Your task to perform on an android device: install app "Google Maps" Image 0: 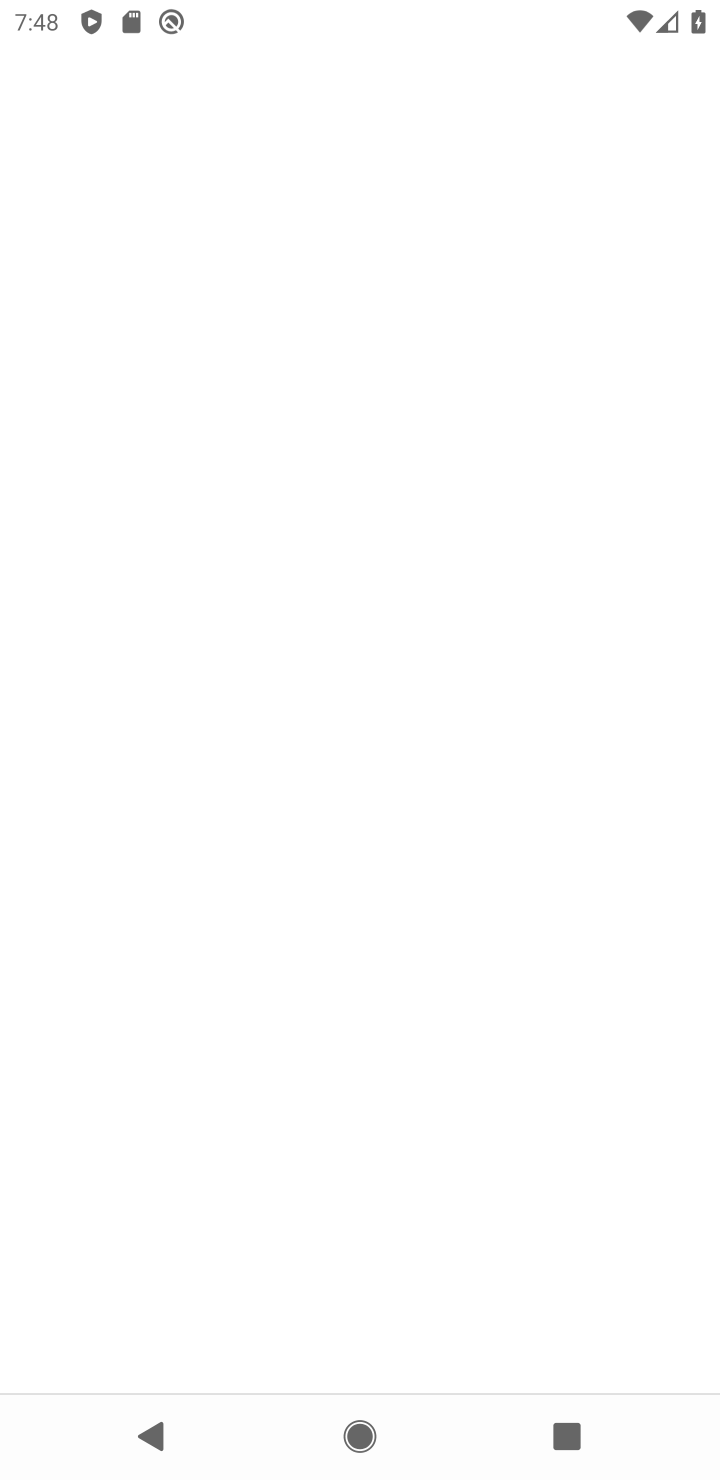
Step 0: press home button
Your task to perform on an android device: install app "Google Maps" Image 1: 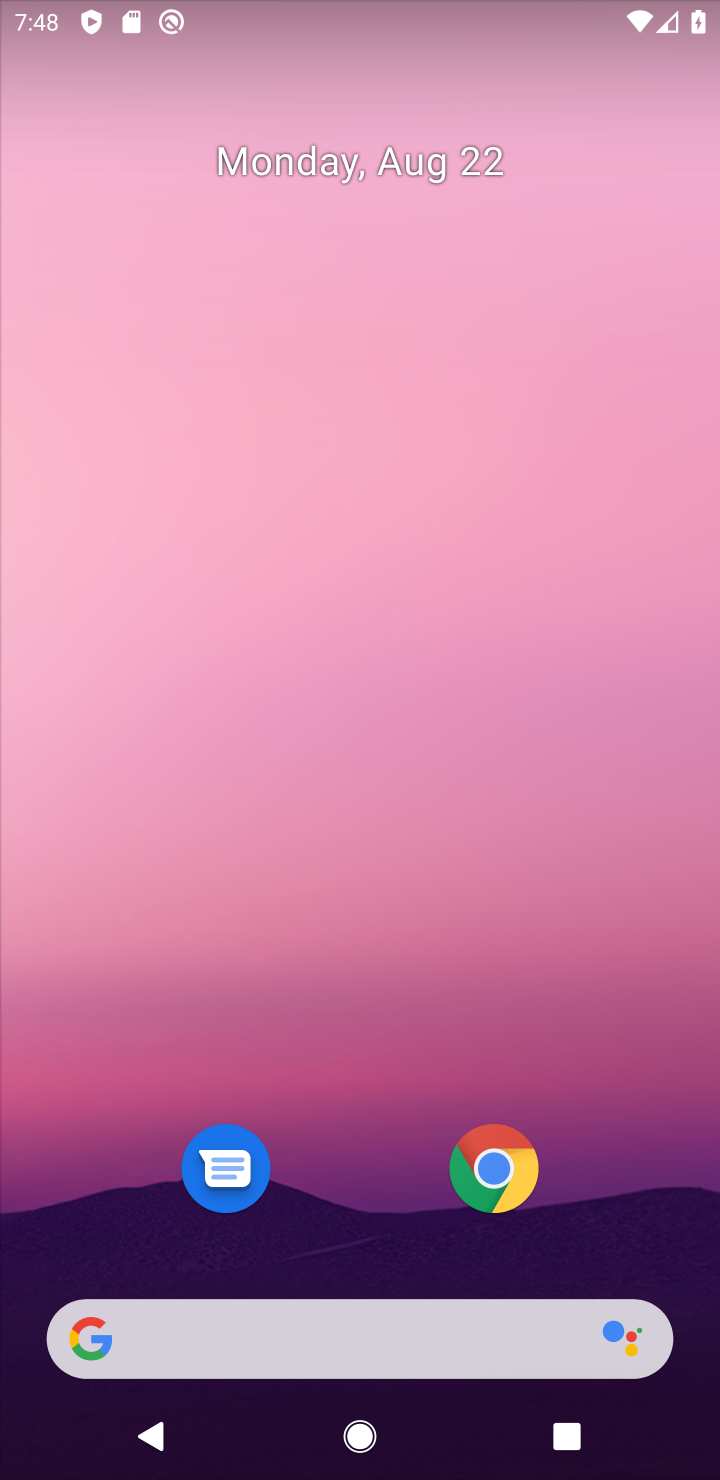
Step 1: drag from (673, 1246) to (575, 115)
Your task to perform on an android device: install app "Google Maps" Image 2: 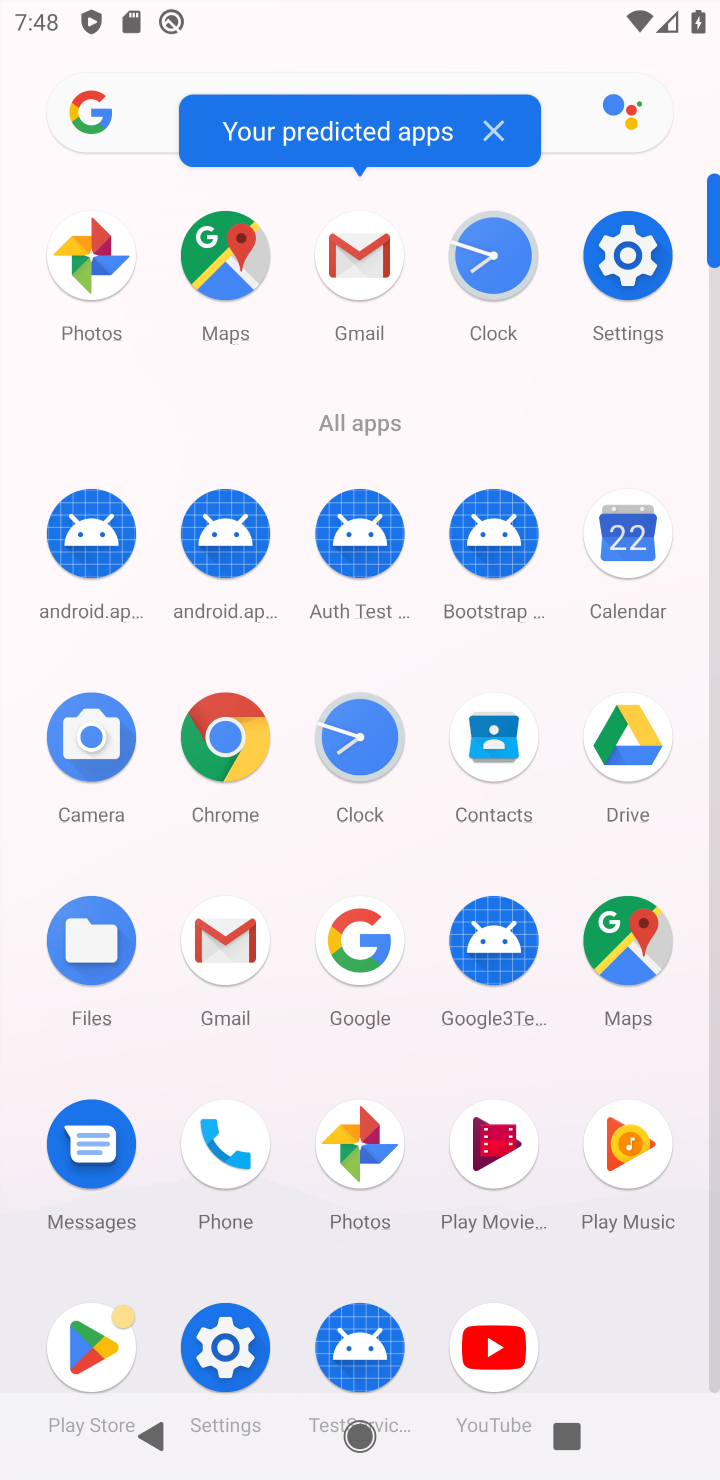
Step 2: click (626, 939)
Your task to perform on an android device: install app "Google Maps" Image 3: 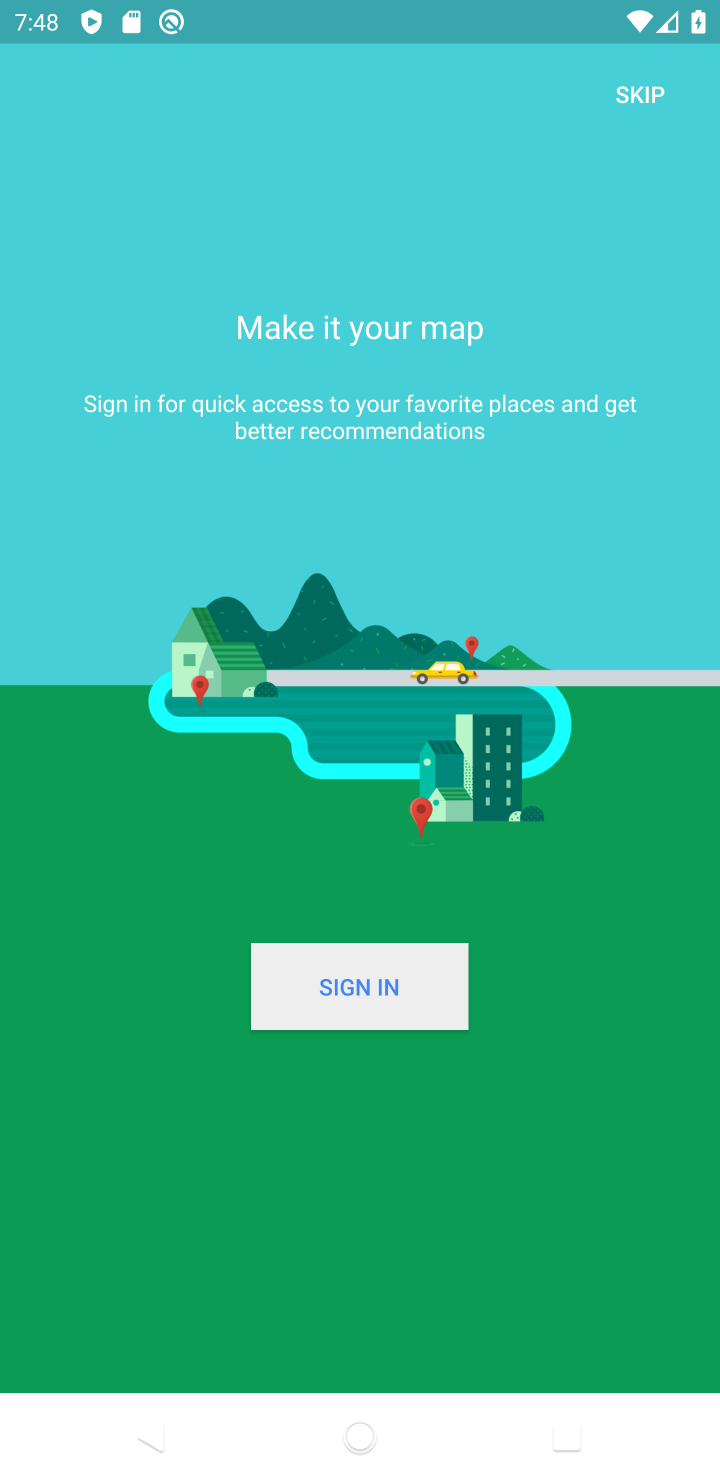
Step 3: click (633, 92)
Your task to perform on an android device: install app "Google Maps" Image 4: 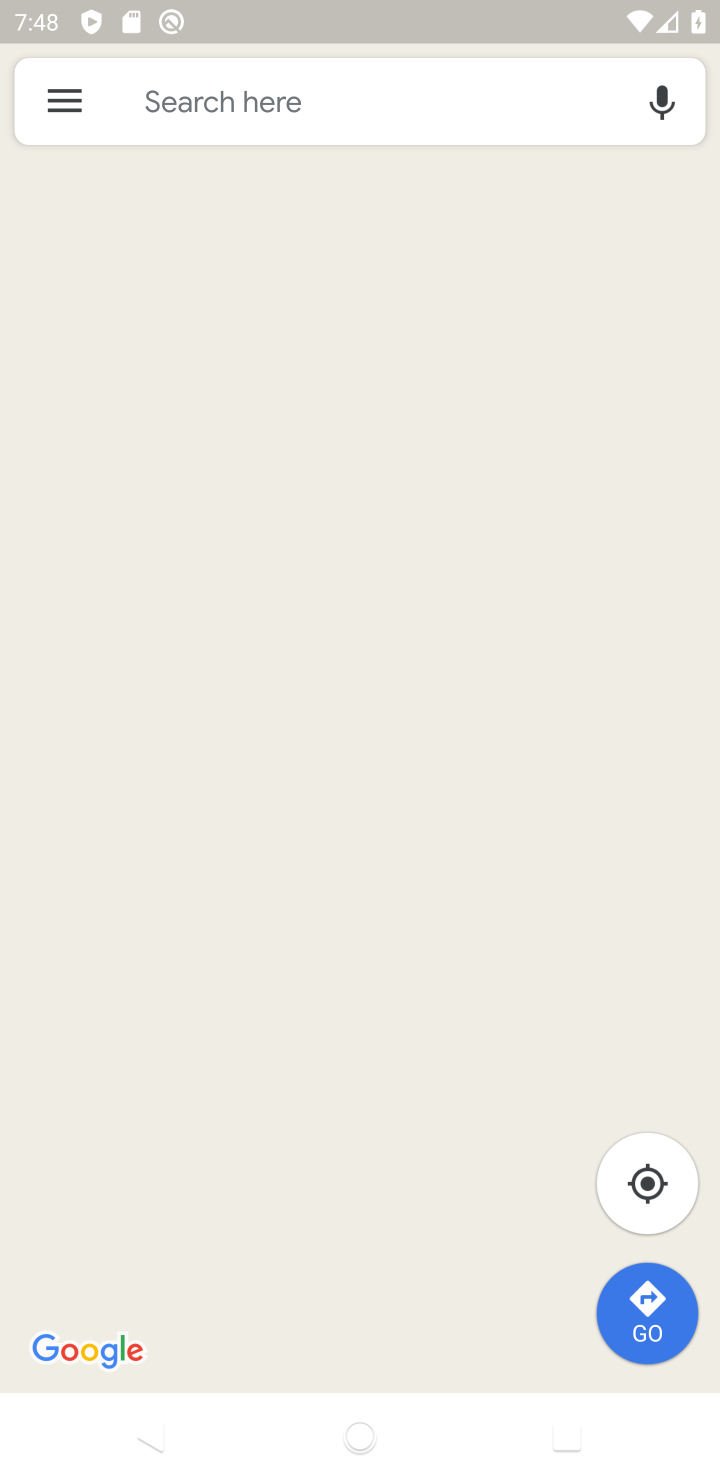
Step 4: task complete